Your task to perform on an android device: check out phone information Image 0: 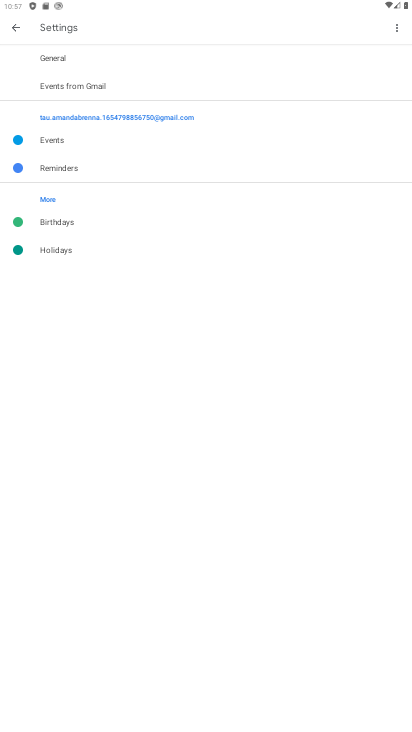
Step 0: press home button
Your task to perform on an android device: check out phone information Image 1: 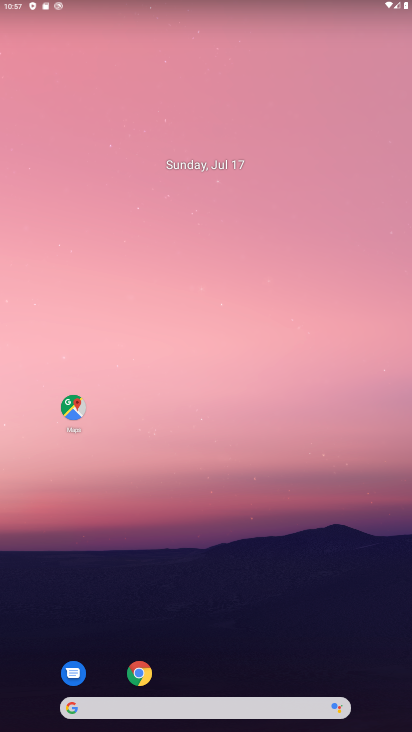
Step 1: drag from (235, 591) to (176, 200)
Your task to perform on an android device: check out phone information Image 2: 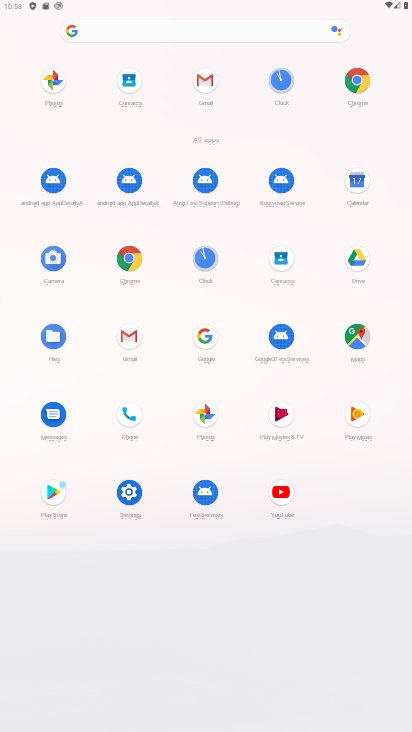
Step 2: click (134, 494)
Your task to perform on an android device: check out phone information Image 3: 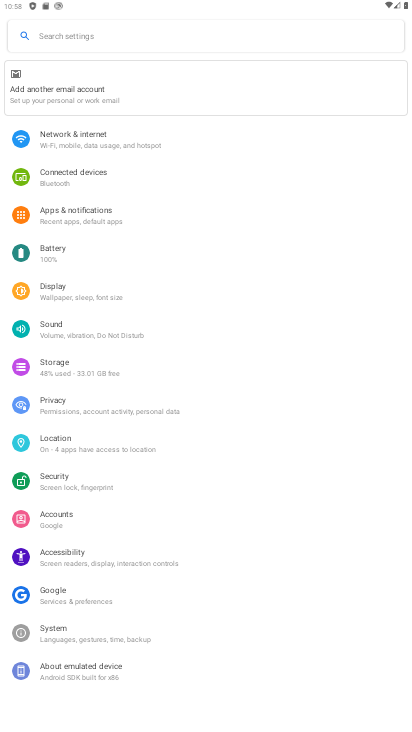
Step 3: click (83, 666)
Your task to perform on an android device: check out phone information Image 4: 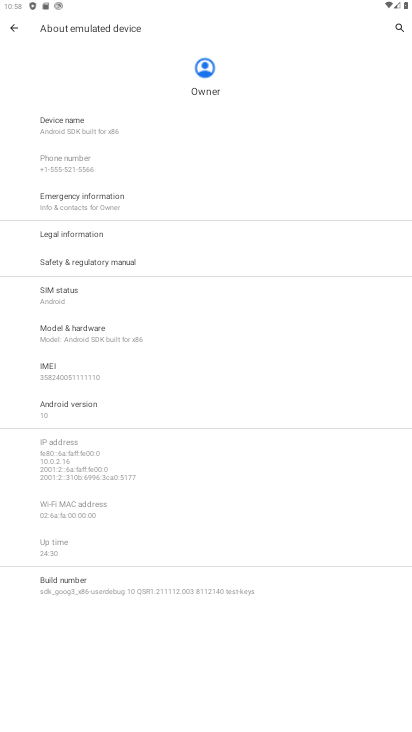
Step 4: task complete